Your task to perform on an android device: Search for Italian restaurants on Maps Image 0: 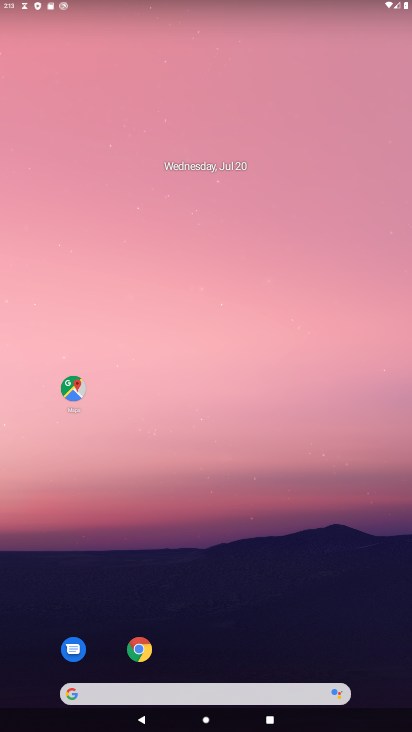
Step 0: click (72, 380)
Your task to perform on an android device: Search for Italian restaurants on Maps Image 1: 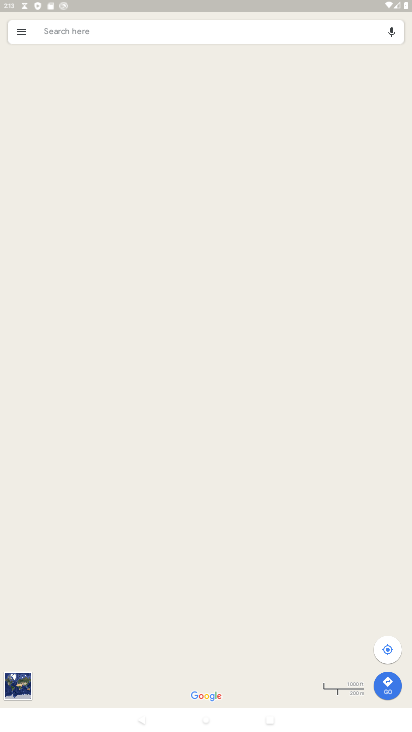
Step 1: click (110, 25)
Your task to perform on an android device: Search for Italian restaurants on Maps Image 2: 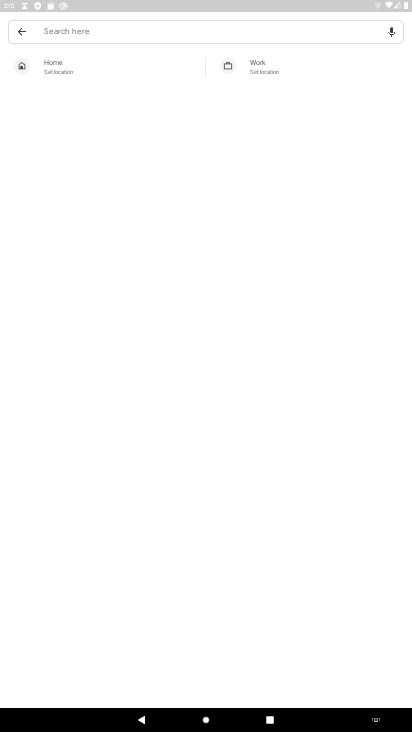
Step 2: type "italian restauranta"
Your task to perform on an android device: Search for Italian restaurants on Maps Image 3: 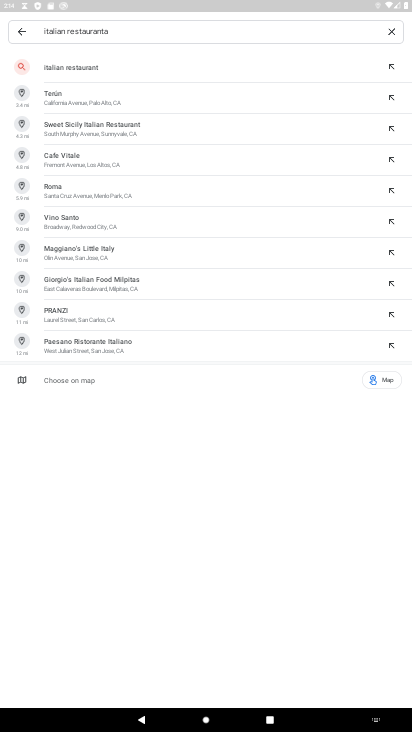
Step 3: click (104, 72)
Your task to perform on an android device: Search for Italian restaurants on Maps Image 4: 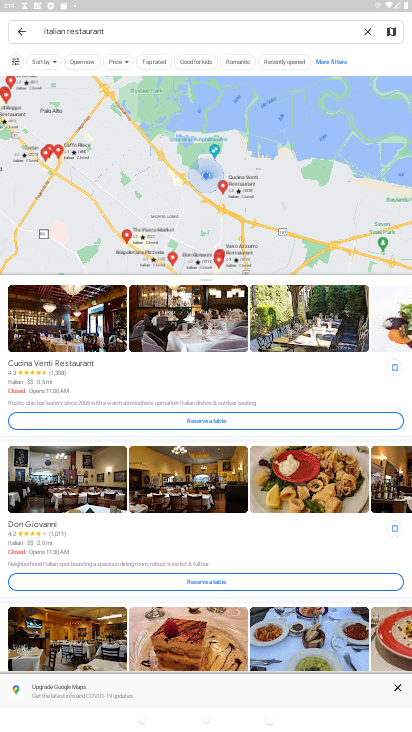
Step 4: task complete